Your task to perform on an android device: turn on the 12-hour format for clock Image 0: 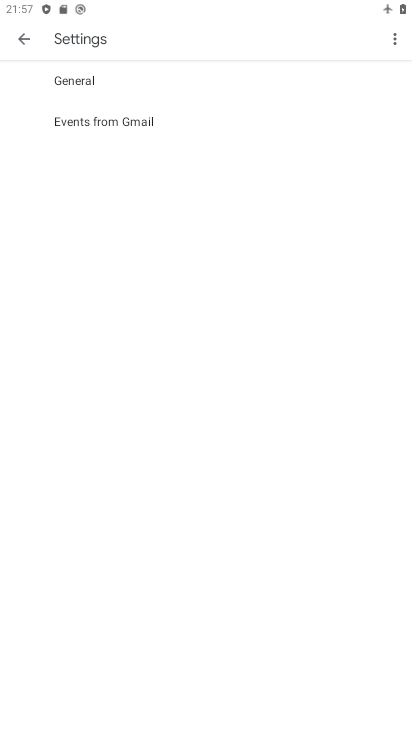
Step 0: press home button
Your task to perform on an android device: turn on the 12-hour format for clock Image 1: 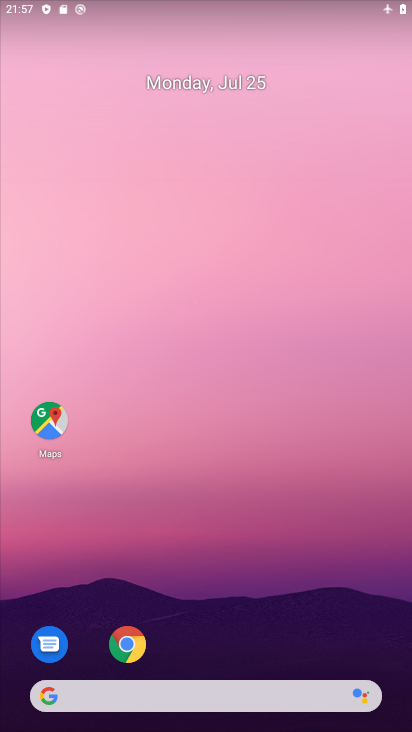
Step 1: drag from (270, 624) to (282, 27)
Your task to perform on an android device: turn on the 12-hour format for clock Image 2: 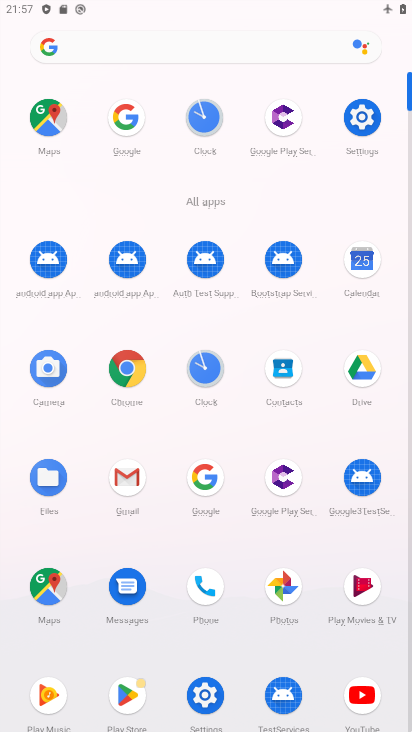
Step 2: click (213, 359)
Your task to perform on an android device: turn on the 12-hour format for clock Image 3: 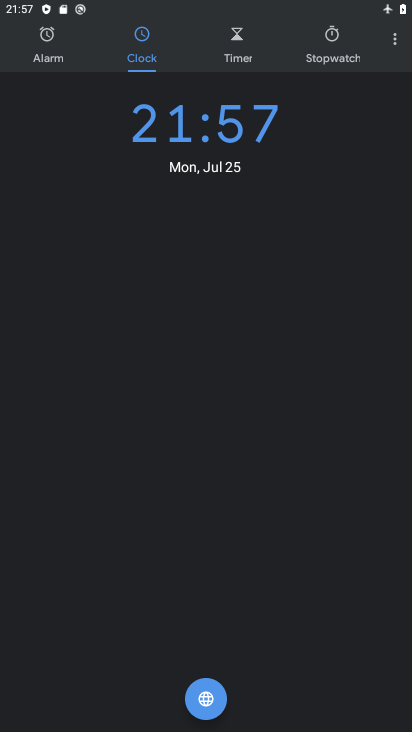
Step 3: click (394, 41)
Your task to perform on an android device: turn on the 12-hour format for clock Image 4: 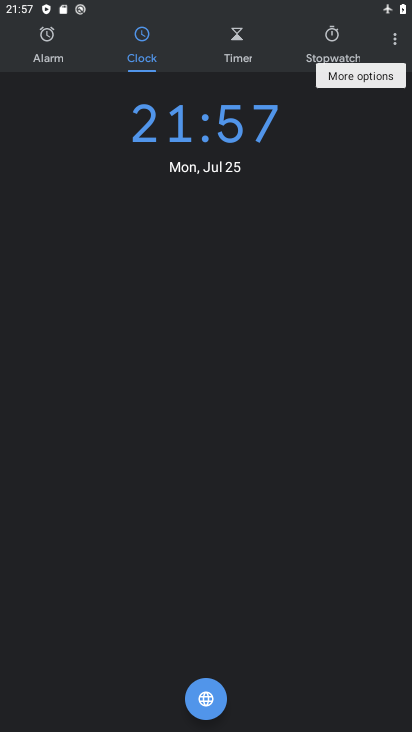
Step 4: click (394, 41)
Your task to perform on an android device: turn on the 12-hour format for clock Image 5: 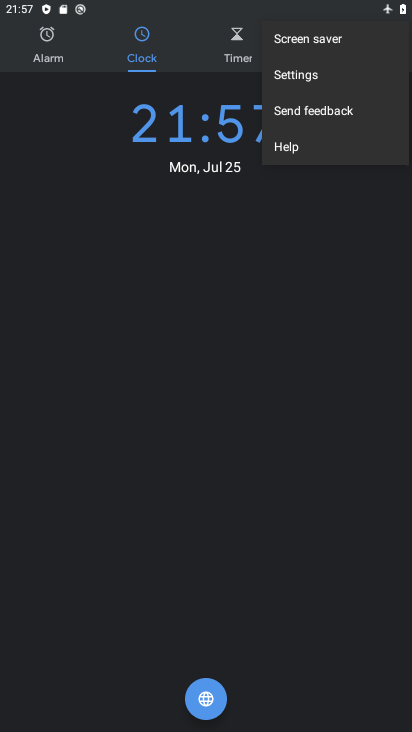
Step 5: click (320, 73)
Your task to perform on an android device: turn on the 12-hour format for clock Image 6: 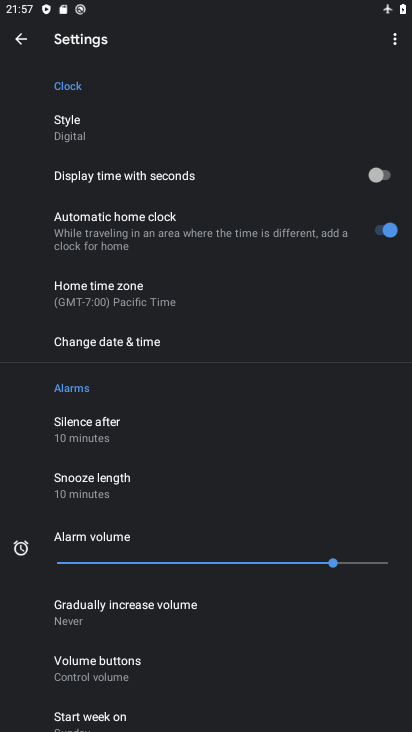
Step 6: click (183, 349)
Your task to perform on an android device: turn on the 12-hour format for clock Image 7: 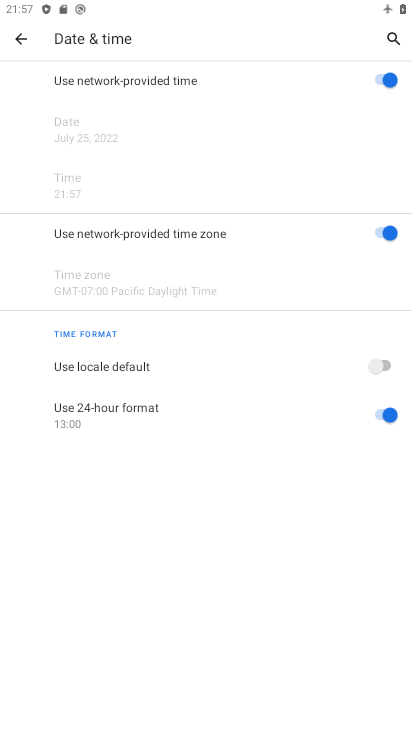
Step 7: click (374, 404)
Your task to perform on an android device: turn on the 12-hour format for clock Image 8: 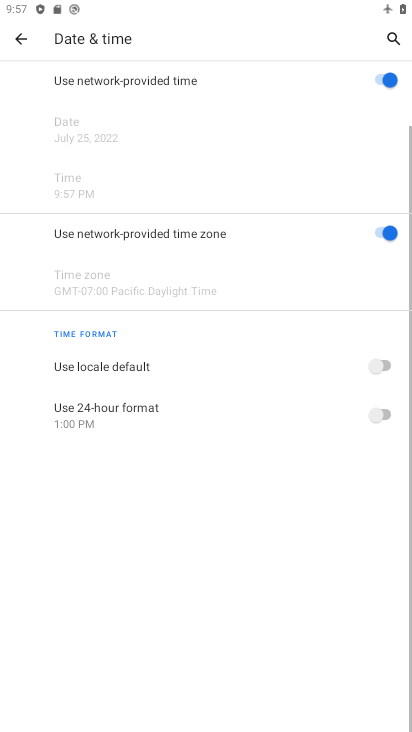
Step 8: click (385, 367)
Your task to perform on an android device: turn on the 12-hour format for clock Image 9: 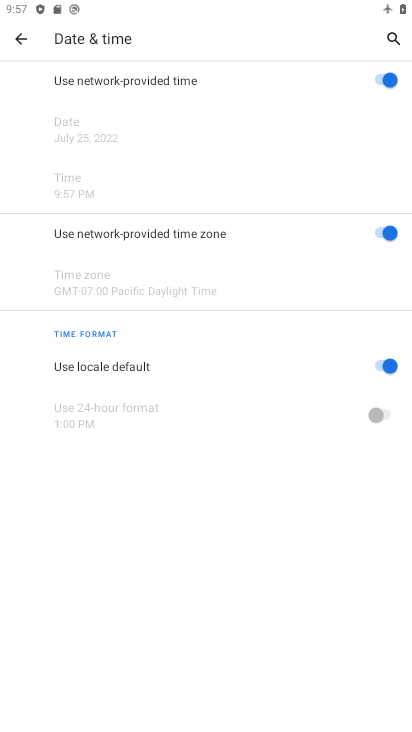
Step 9: task complete